Your task to perform on an android device: Is it going to rain this weekend? Image 0: 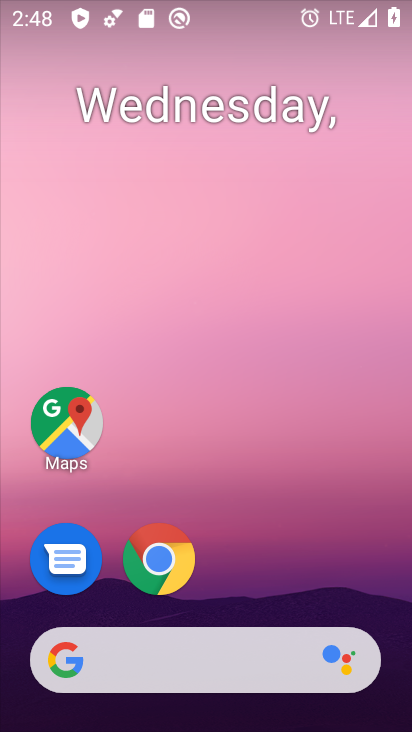
Step 0: click (172, 670)
Your task to perform on an android device: Is it going to rain this weekend? Image 1: 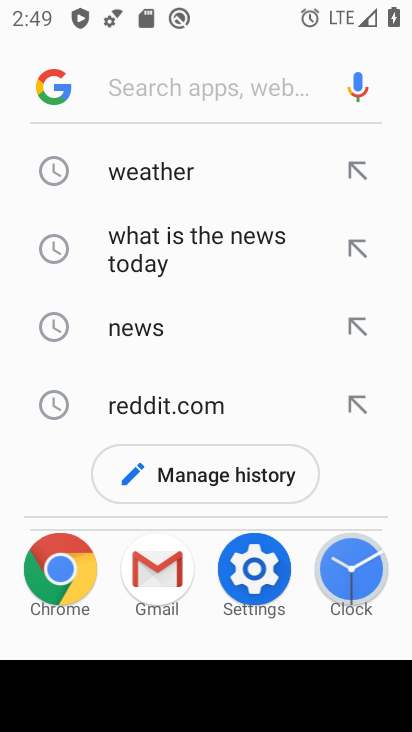
Step 1: click (166, 167)
Your task to perform on an android device: Is it going to rain this weekend? Image 2: 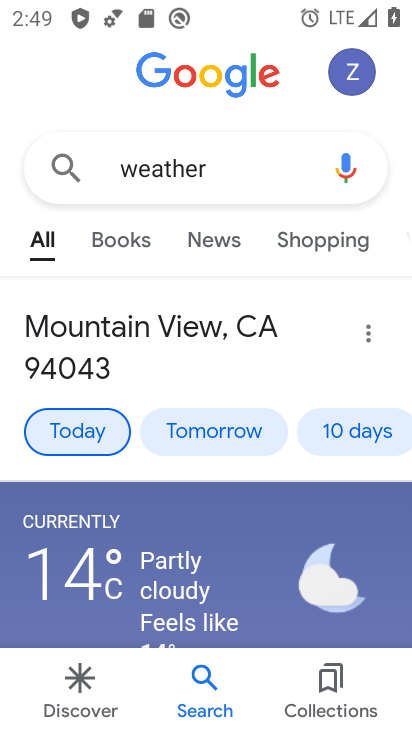
Step 2: click (336, 430)
Your task to perform on an android device: Is it going to rain this weekend? Image 3: 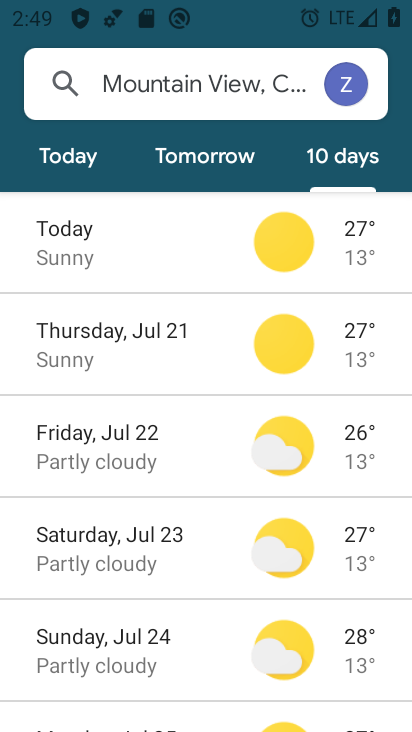
Step 3: task complete